Your task to perform on an android device: Go to Google Image 0: 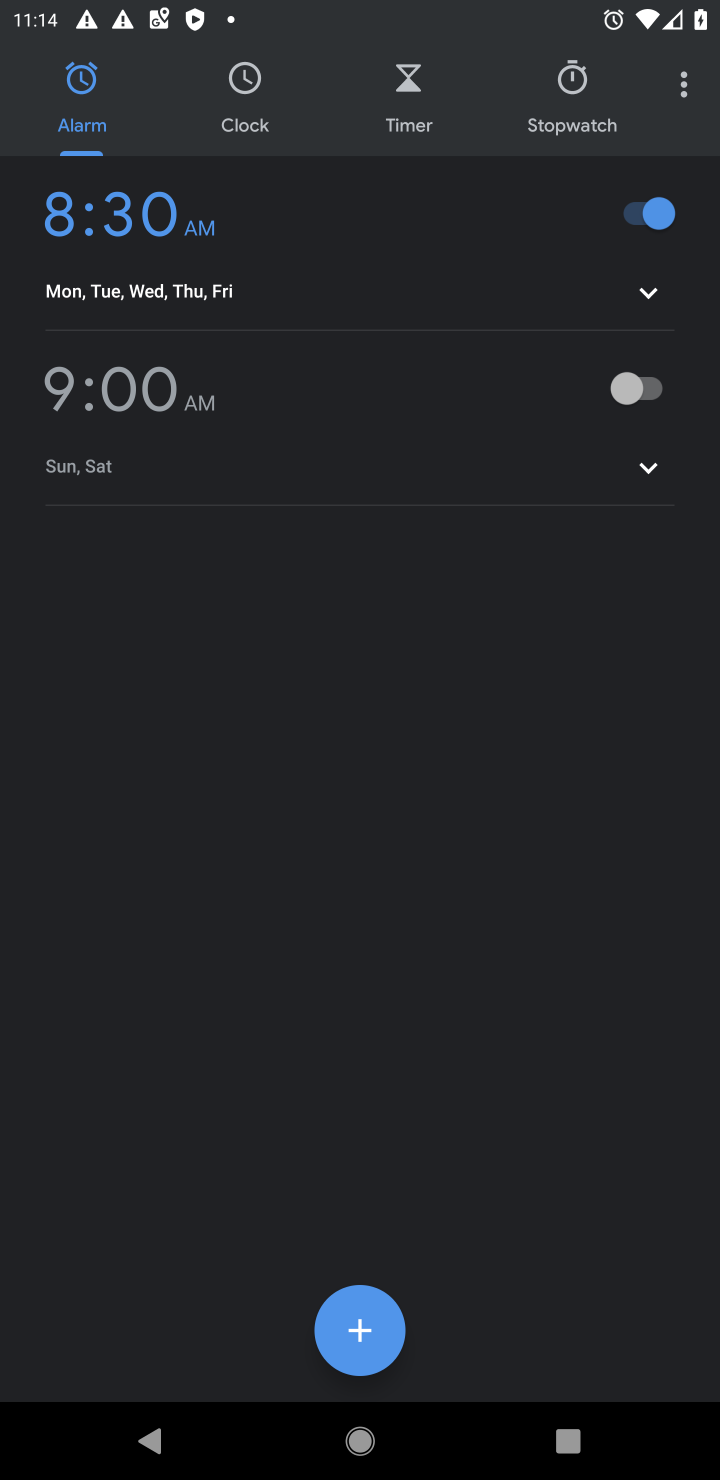
Step 0: press home button
Your task to perform on an android device: Go to Google Image 1: 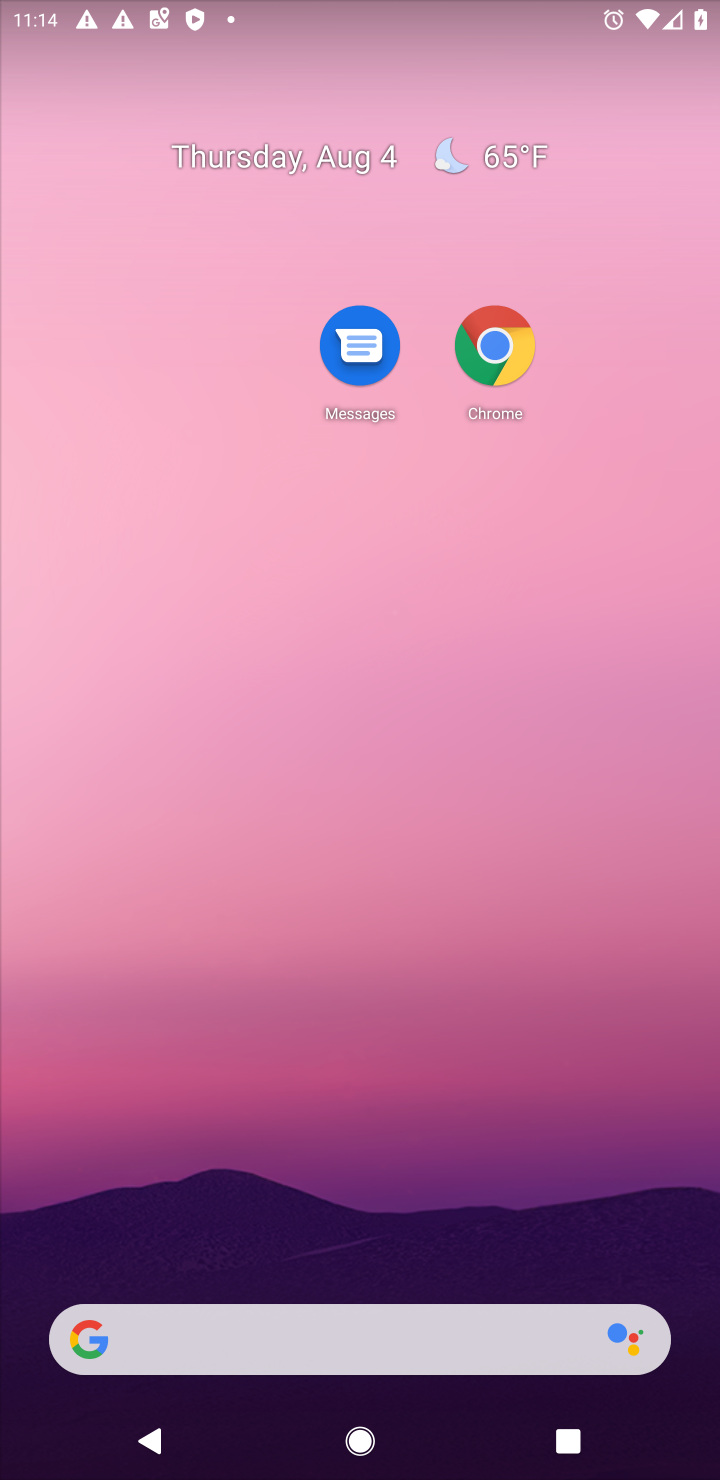
Step 1: drag from (438, 1265) to (454, 83)
Your task to perform on an android device: Go to Google Image 2: 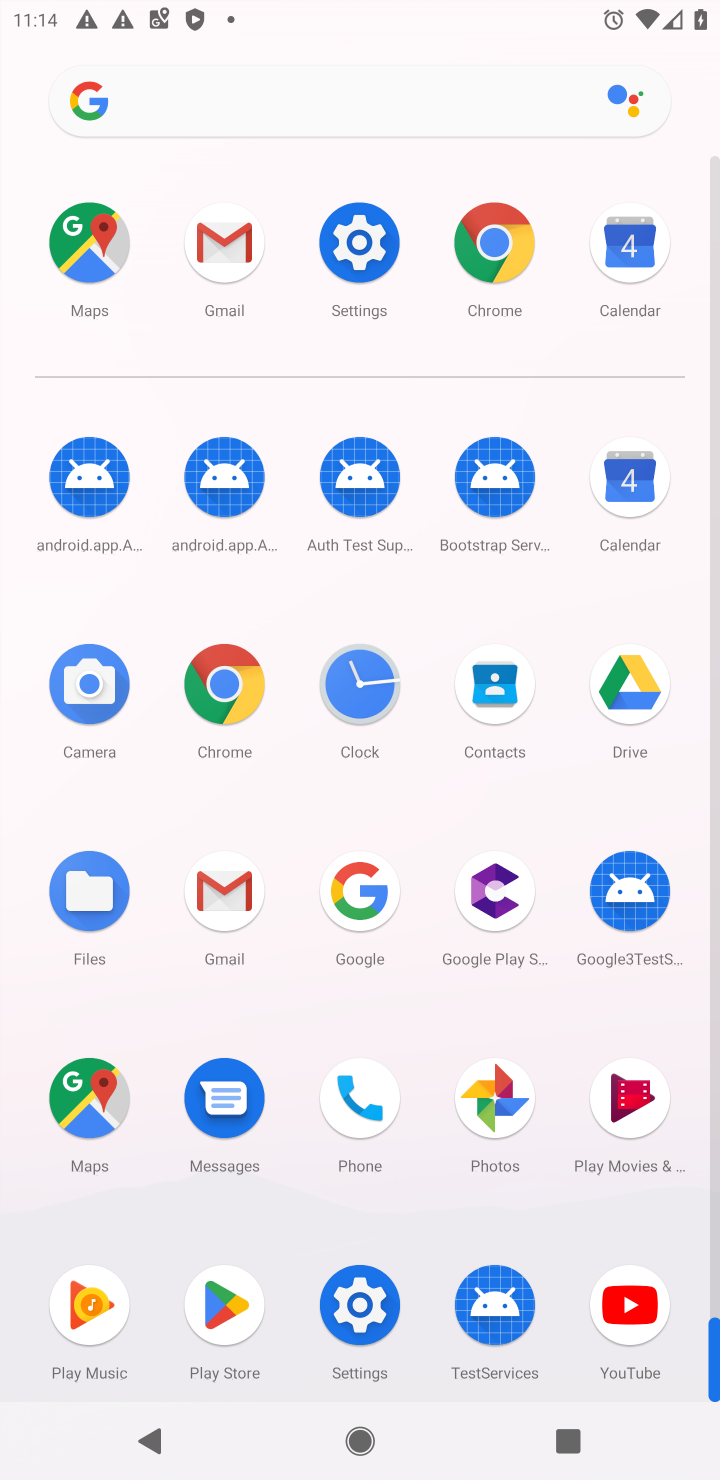
Step 2: click (358, 915)
Your task to perform on an android device: Go to Google Image 3: 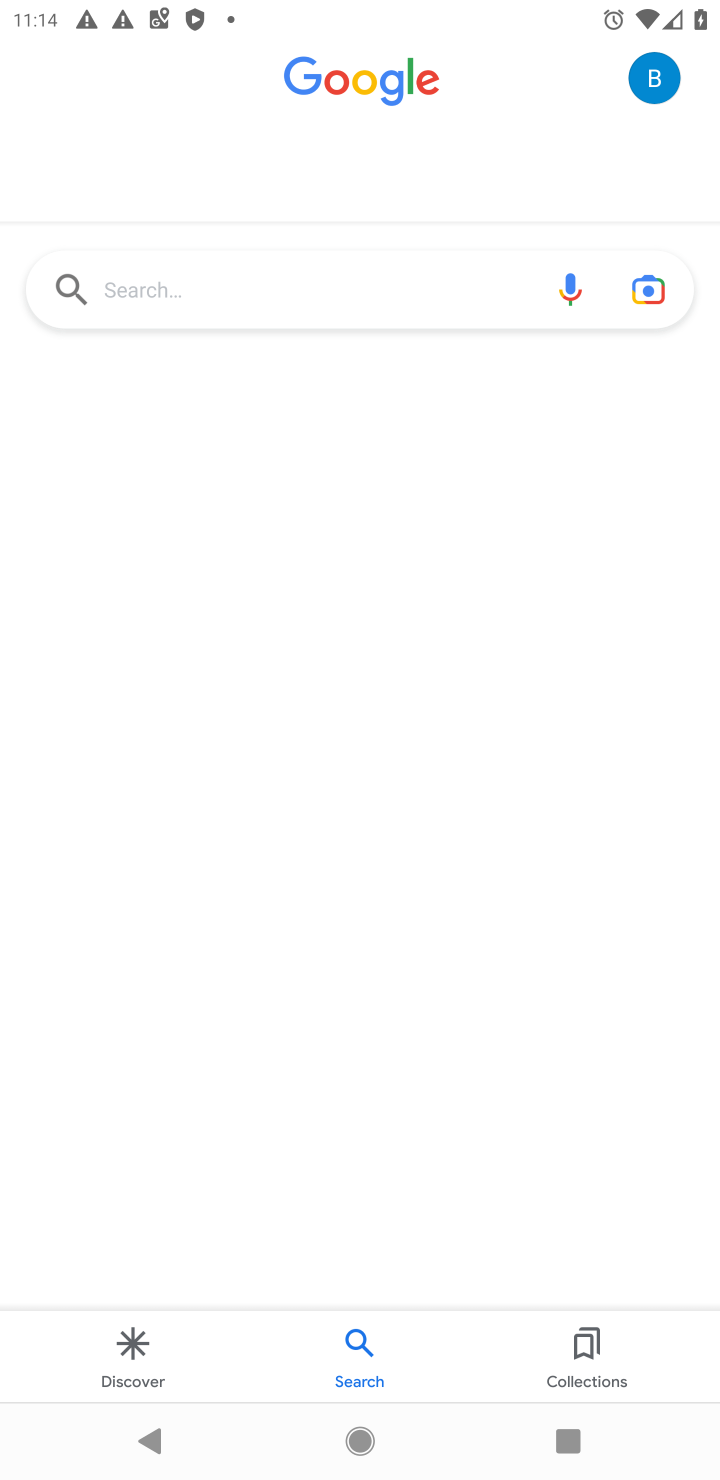
Step 3: task complete